Your task to perform on an android device: Open the map Image 0: 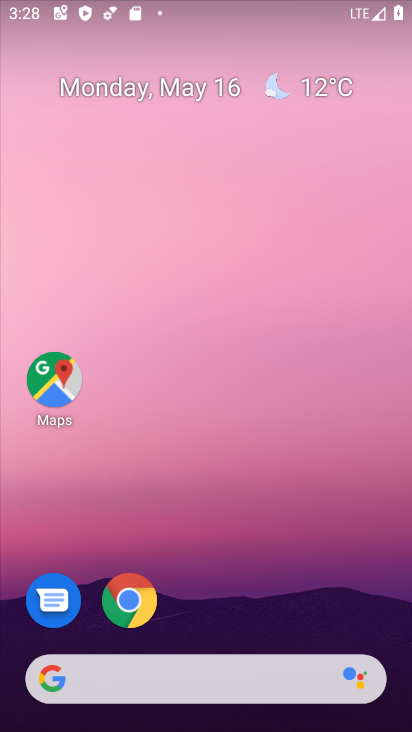
Step 0: click (40, 376)
Your task to perform on an android device: Open the map Image 1: 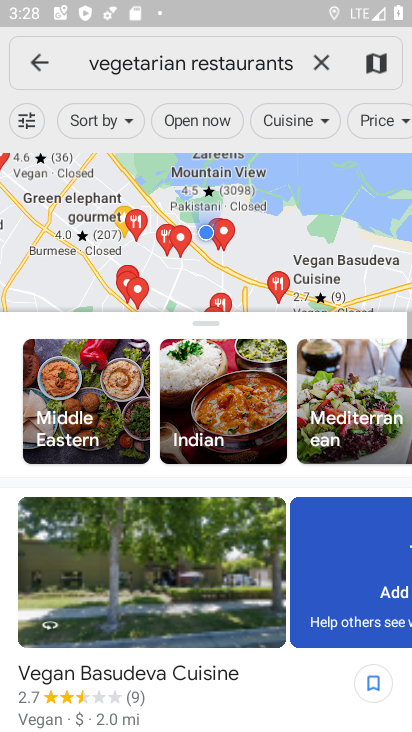
Step 1: task complete